Your task to perform on an android device: Open the stopwatch Image 0: 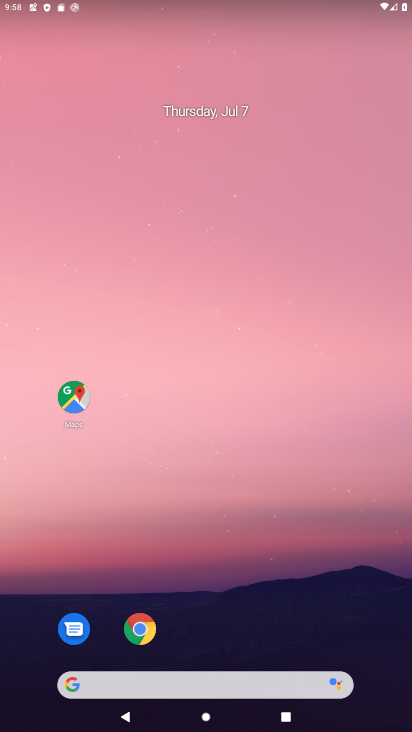
Step 0: drag from (201, 615) to (377, 9)
Your task to perform on an android device: Open the stopwatch Image 1: 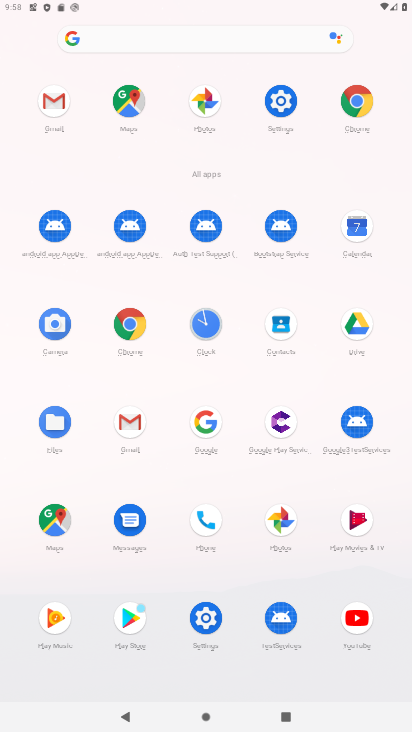
Step 1: click (202, 328)
Your task to perform on an android device: Open the stopwatch Image 2: 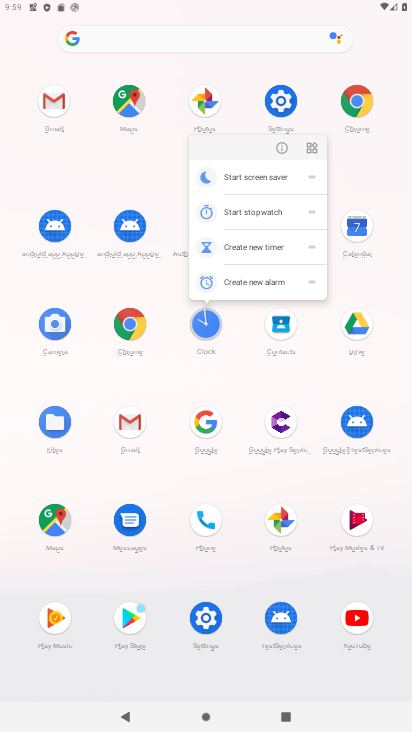
Step 2: click (200, 341)
Your task to perform on an android device: Open the stopwatch Image 3: 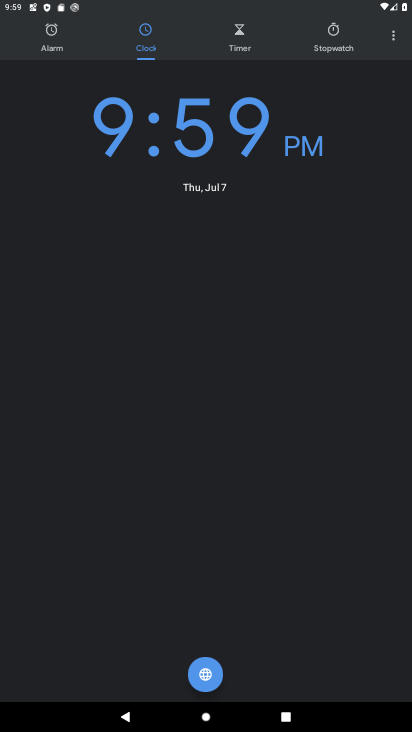
Step 3: click (318, 44)
Your task to perform on an android device: Open the stopwatch Image 4: 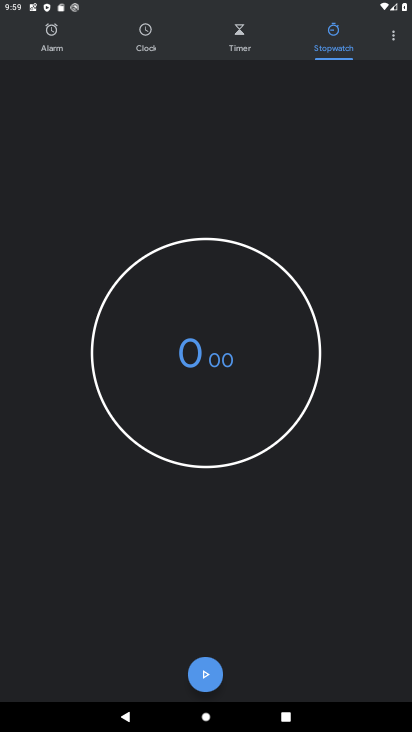
Step 4: task complete